Your task to perform on an android device: open app "LiveIn - Share Your Moment" (install if not already installed), go to login, and select forgot password Image 0: 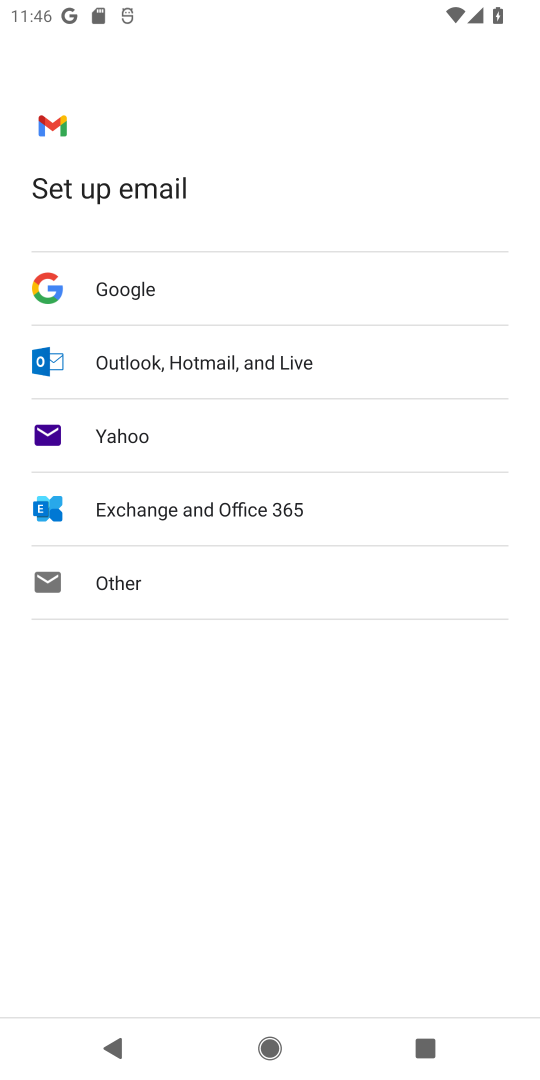
Step 0: press home button
Your task to perform on an android device: open app "LiveIn - Share Your Moment" (install if not already installed), go to login, and select forgot password Image 1: 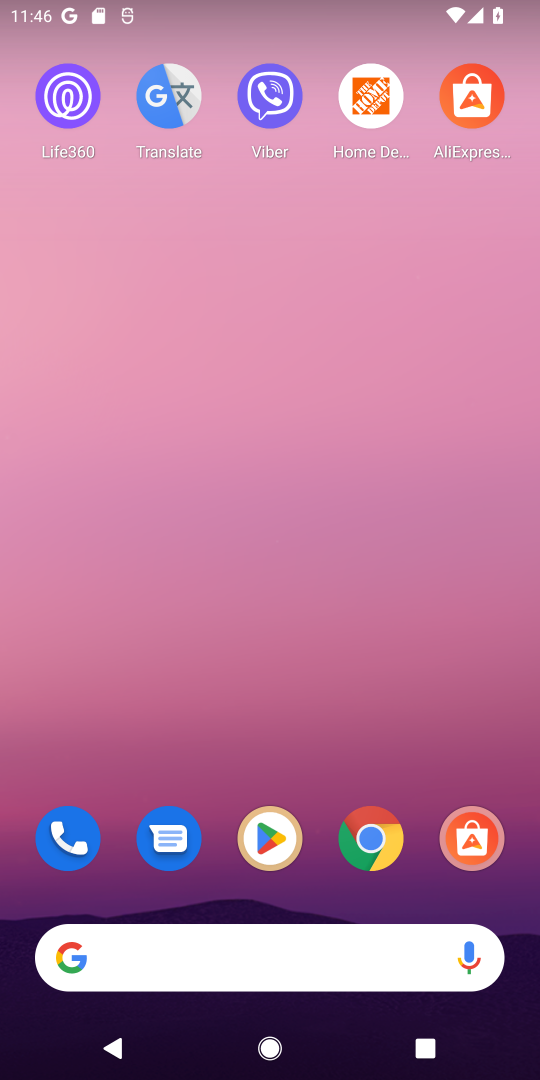
Step 1: click (283, 826)
Your task to perform on an android device: open app "LiveIn - Share Your Moment" (install if not already installed), go to login, and select forgot password Image 2: 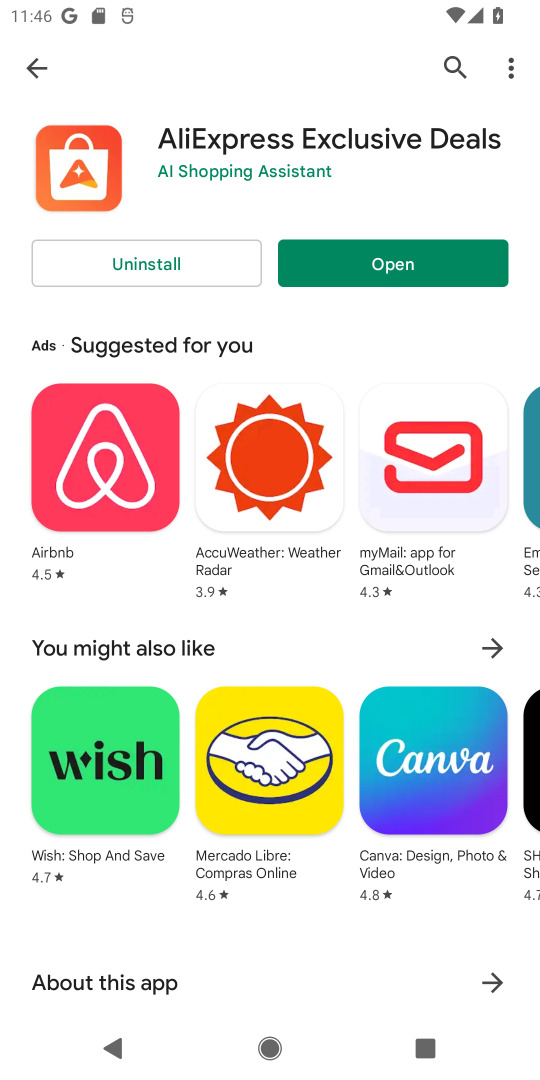
Step 2: click (448, 58)
Your task to perform on an android device: open app "LiveIn - Share Your Moment" (install if not already installed), go to login, and select forgot password Image 3: 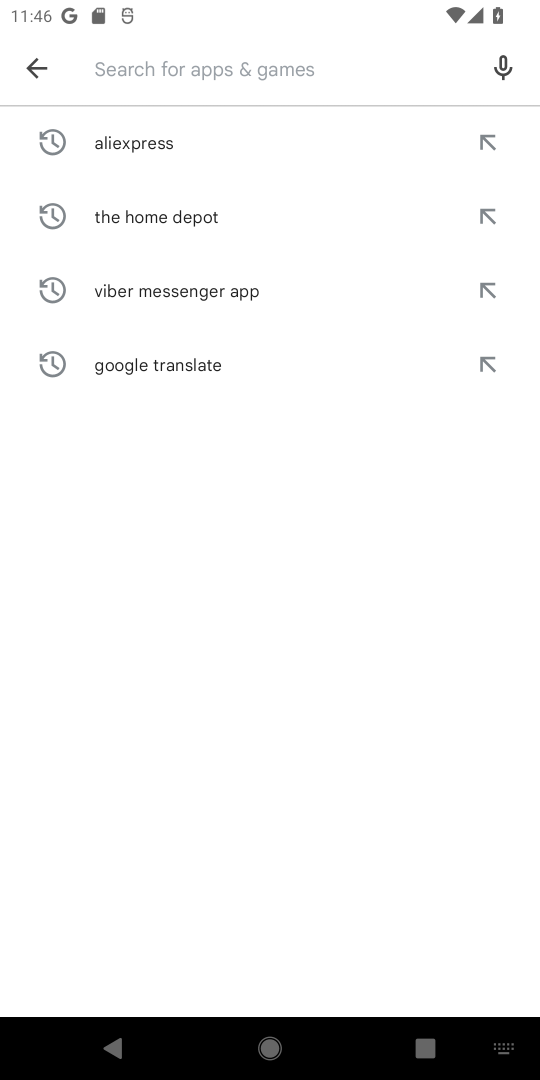
Step 3: type "LiveIn - Share Your Moment"
Your task to perform on an android device: open app "LiveIn - Share Your Moment" (install if not already installed), go to login, and select forgot password Image 4: 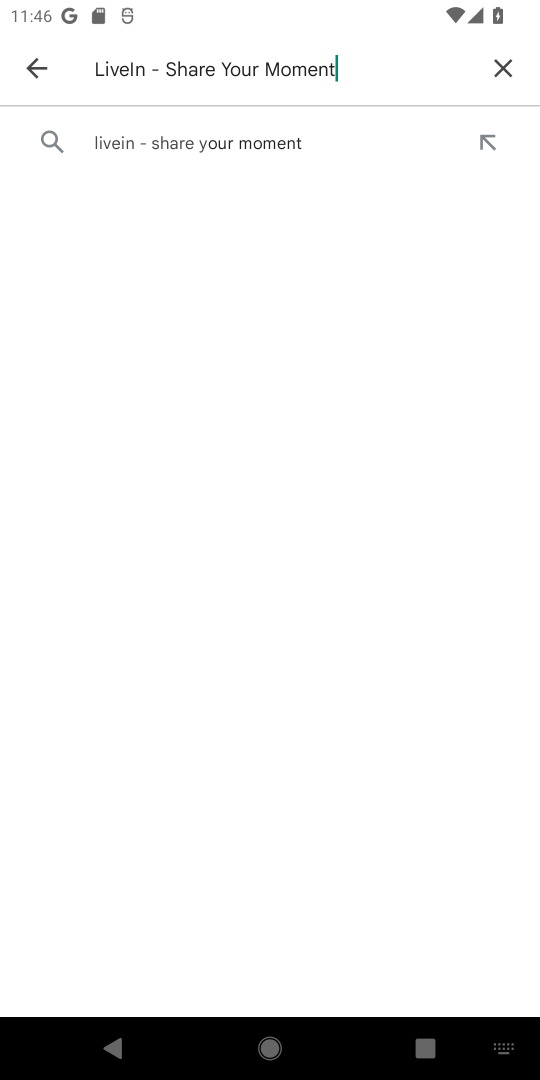
Step 4: type ""
Your task to perform on an android device: open app "LiveIn - Share Your Moment" (install if not already installed), go to login, and select forgot password Image 5: 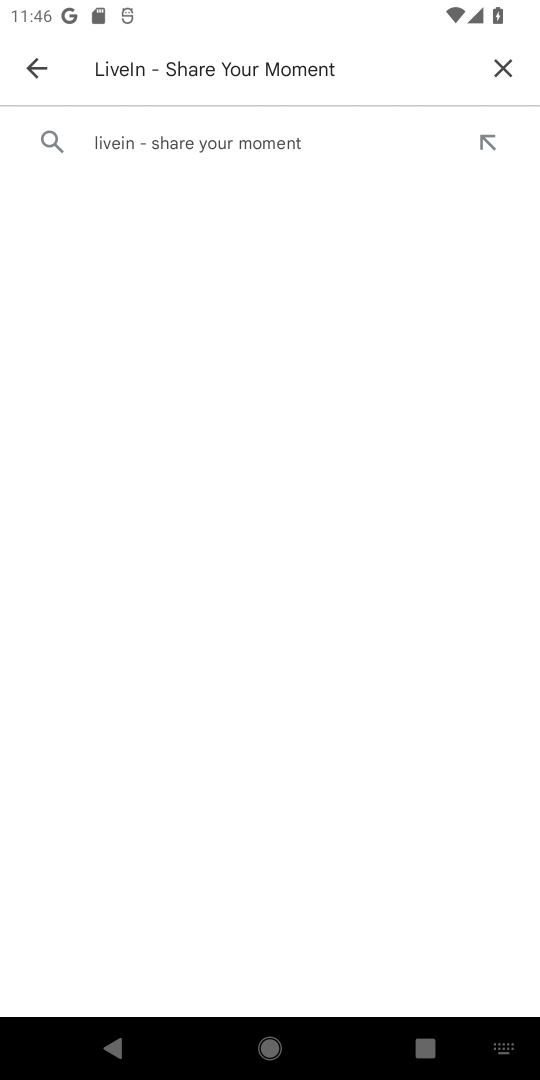
Step 5: click (169, 138)
Your task to perform on an android device: open app "LiveIn - Share Your Moment" (install if not already installed), go to login, and select forgot password Image 6: 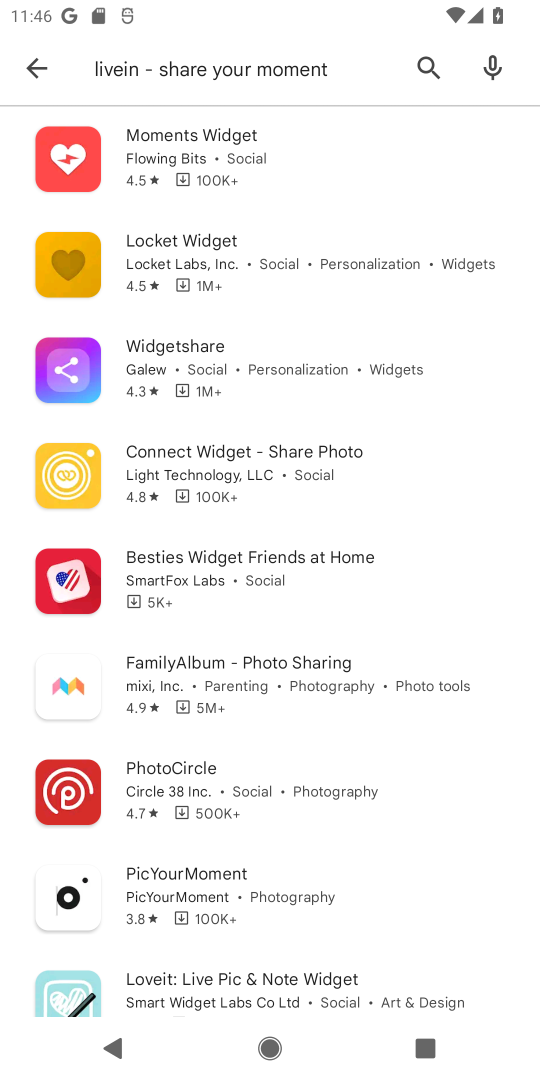
Step 6: task complete